Your task to perform on an android device: change the clock style Image 0: 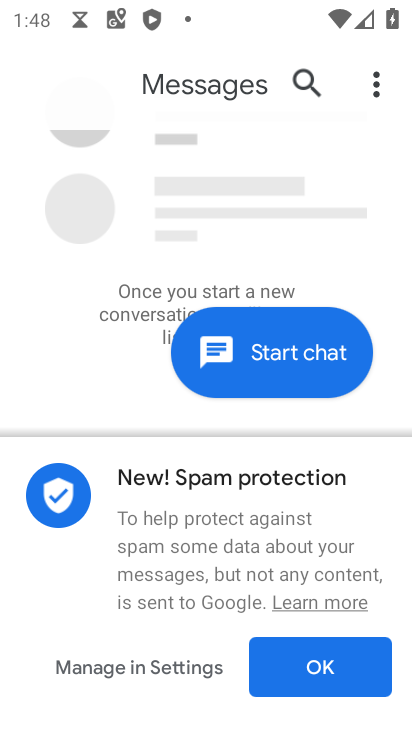
Step 0: press home button
Your task to perform on an android device: change the clock style Image 1: 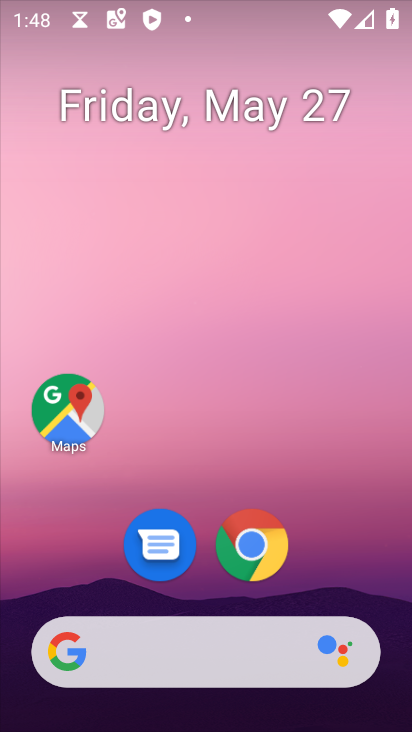
Step 1: drag from (308, 535) to (251, 49)
Your task to perform on an android device: change the clock style Image 2: 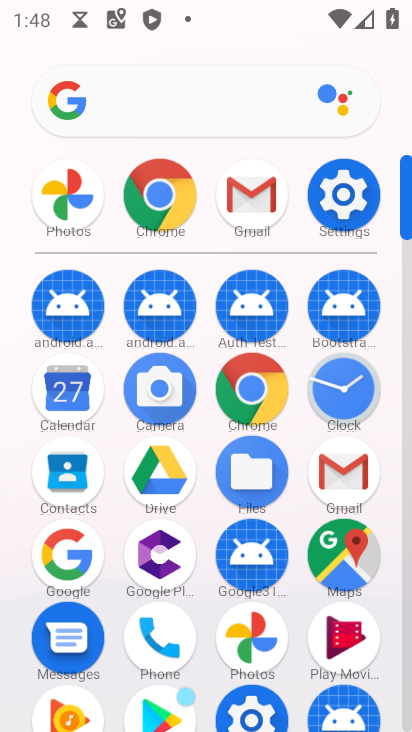
Step 2: click (347, 378)
Your task to perform on an android device: change the clock style Image 3: 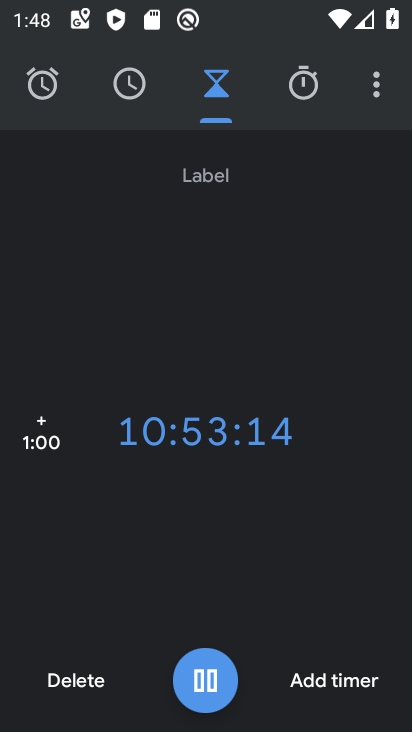
Step 3: click (369, 88)
Your task to perform on an android device: change the clock style Image 4: 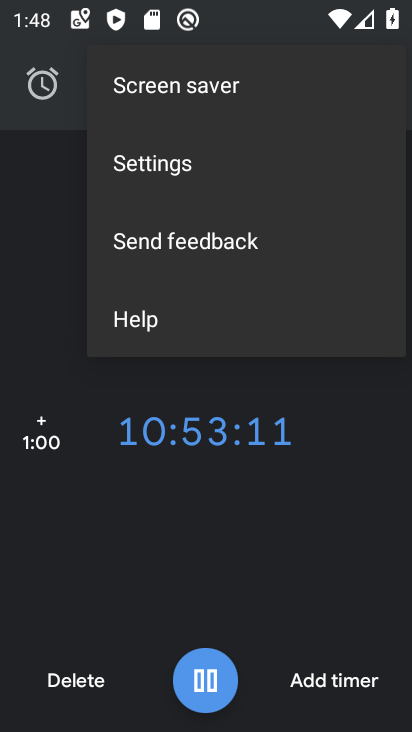
Step 4: click (237, 177)
Your task to perform on an android device: change the clock style Image 5: 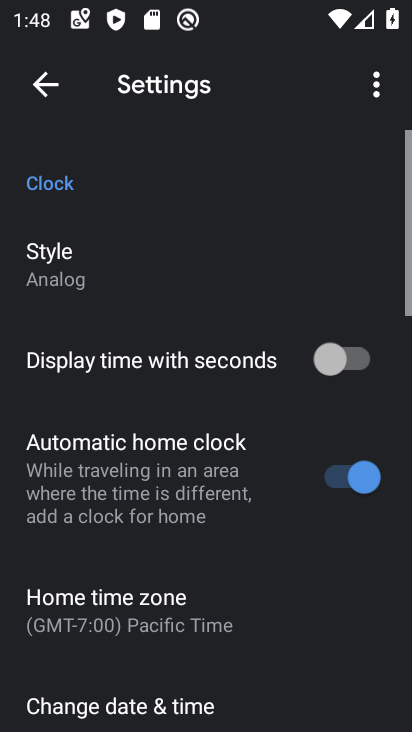
Step 5: click (89, 267)
Your task to perform on an android device: change the clock style Image 6: 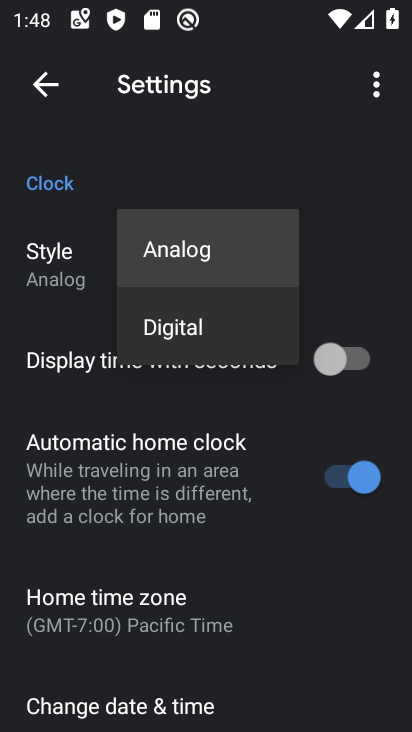
Step 6: click (206, 310)
Your task to perform on an android device: change the clock style Image 7: 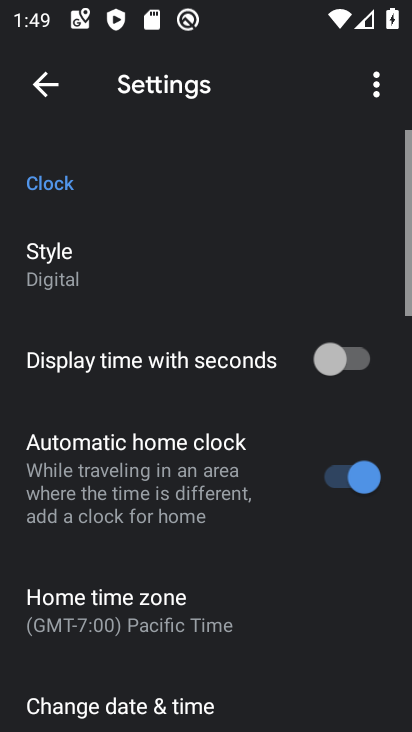
Step 7: task complete